Your task to perform on an android device: Go to Amazon Image 0: 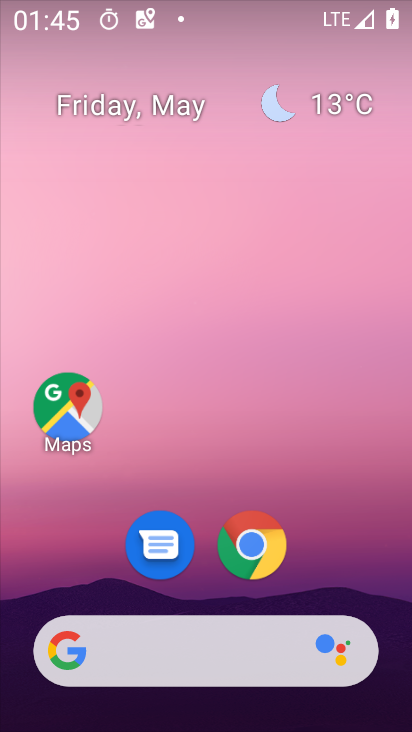
Step 0: click (243, 561)
Your task to perform on an android device: Go to Amazon Image 1: 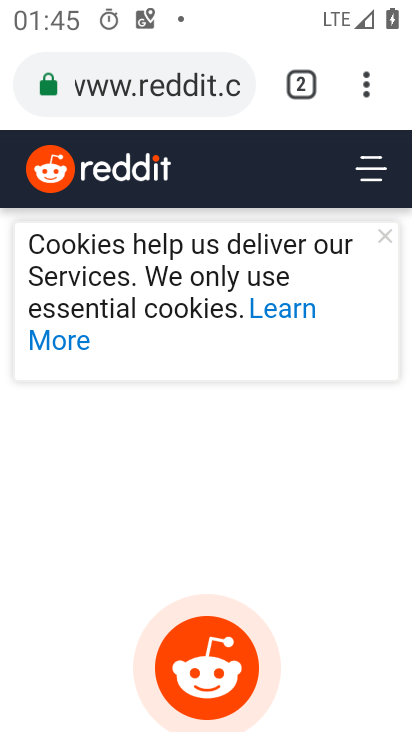
Step 1: click (248, 544)
Your task to perform on an android device: Go to Amazon Image 2: 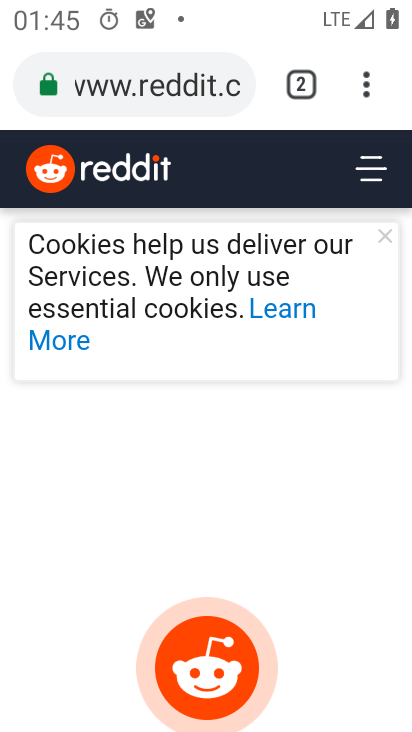
Step 2: press back button
Your task to perform on an android device: Go to Amazon Image 3: 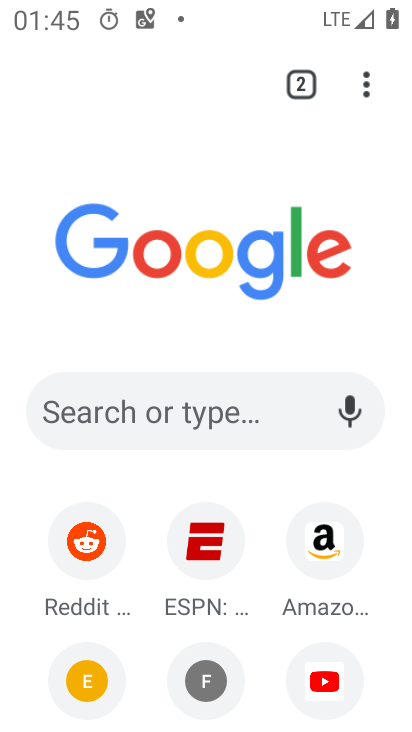
Step 3: click (319, 559)
Your task to perform on an android device: Go to Amazon Image 4: 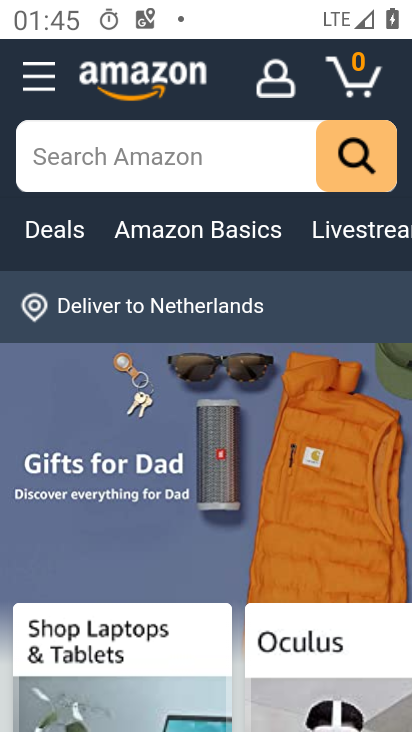
Step 4: task complete